Your task to perform on an android device: turn off priority inbox in the gmail app Image 0: 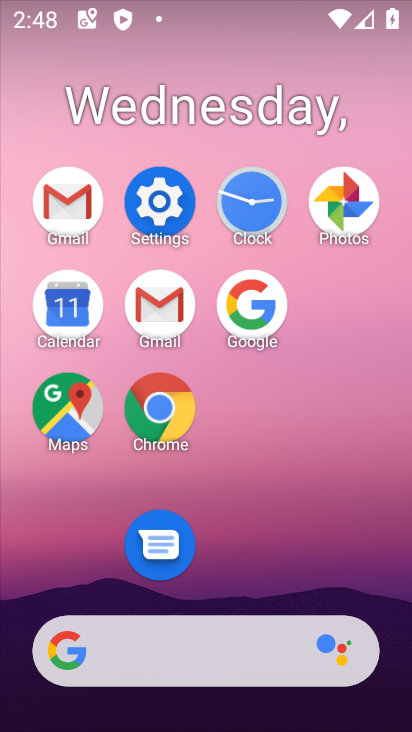
Step 0: click (180, 322)
Your task to perform on an android device: turn off priority inbox in the gmail app Image 1: 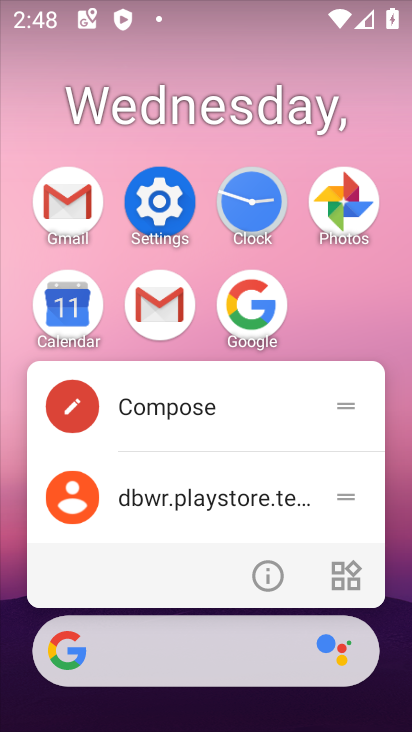
Step 1: click (159, 312)
Your task to perform on an android device: turn off priority inbox in the gmail app Image 2: 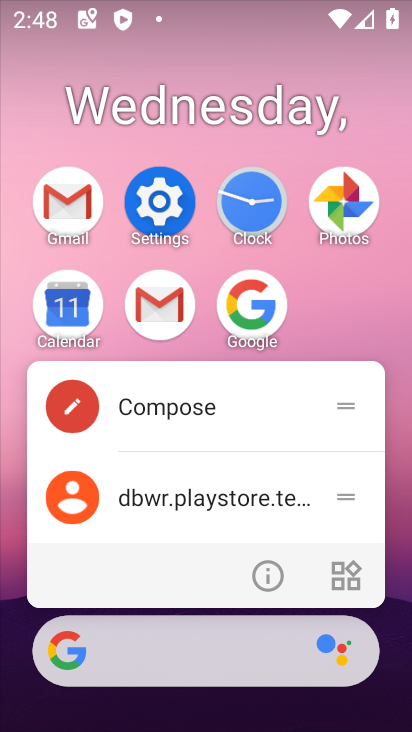
Step 2: click (160, 313)
Your task to perform on an android device: turn off priority inbox in the gmail app Image 3: 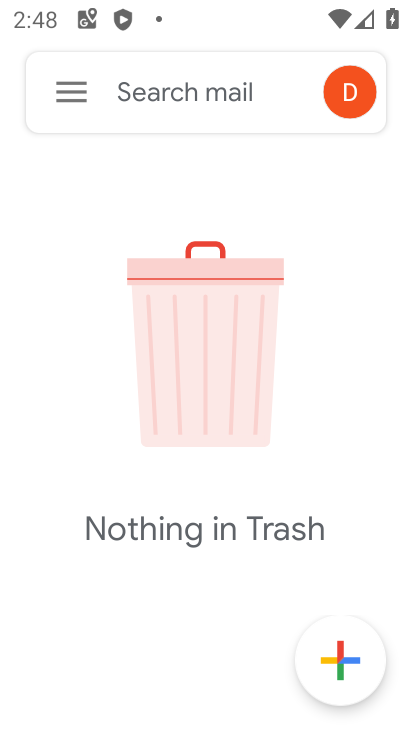
Step 3: click (84, 114)
Your task to perform on an android device: turn off priority inbox in the gmail app Image 4: 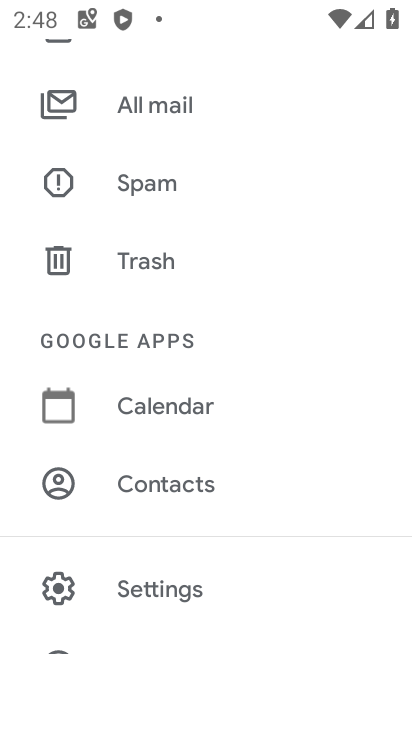
Step 4: click (192, 589)
Your task to perform on an android device: turn off priority inbox in the gmail app Image 5: 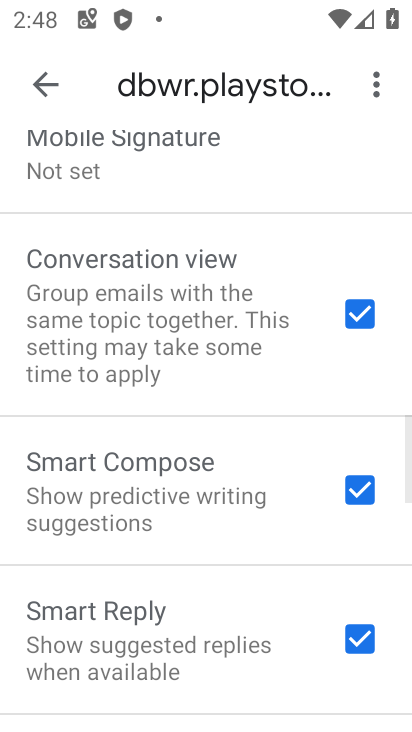
Step 5: drag from (191, 576) to (247, 590)
Your task to perform on an android device: turn off priority inbox in the gmail app Image 6: 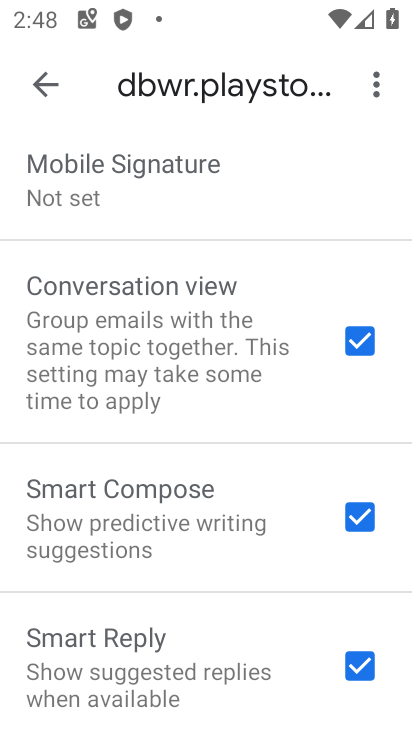
Step 6: drag from (246, 195) to (264, 529)
Your task to perform on an android device: turn off priority inbox in the gmail app Image 7: 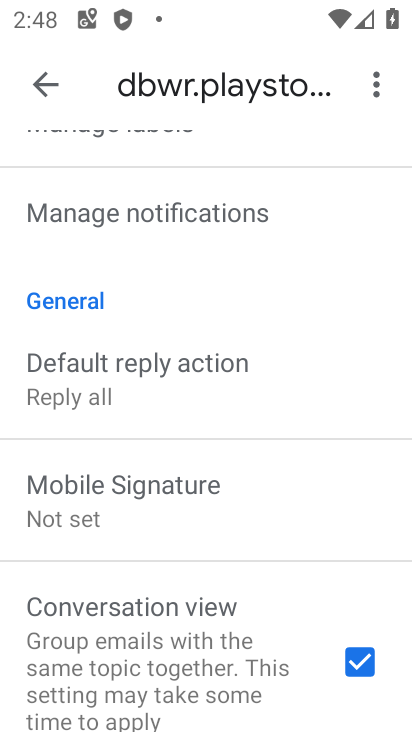
Step 7: drag from (259, 183) to (274, 528)
Your task to perform on an android device: turn off priority inbox in the gmail app Image 8: 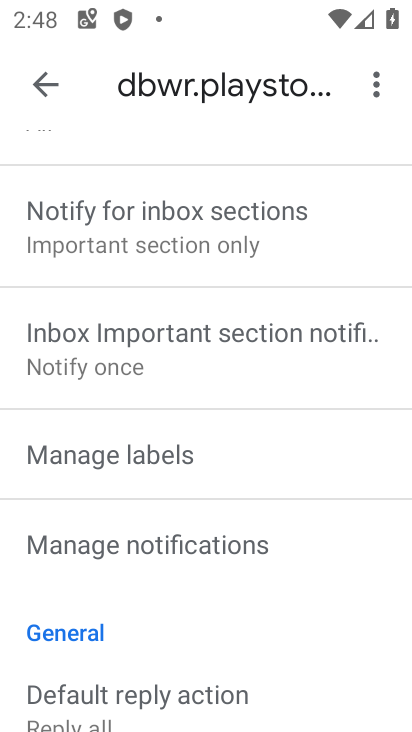
Step 8: drag from (272, 219) to (258, 646)
Your task to perform on an android device: turn off priority inbox in the gmail app Image 9: 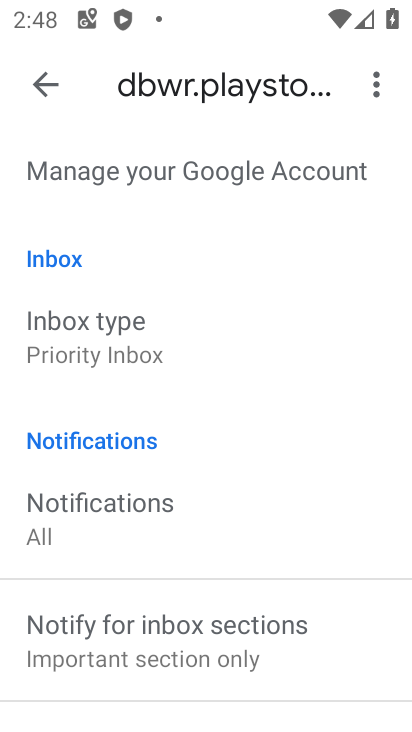
Step 9: click (162, 346)
Your task to perform on an android device: turn off priority inbox in the gmail app Image 10: 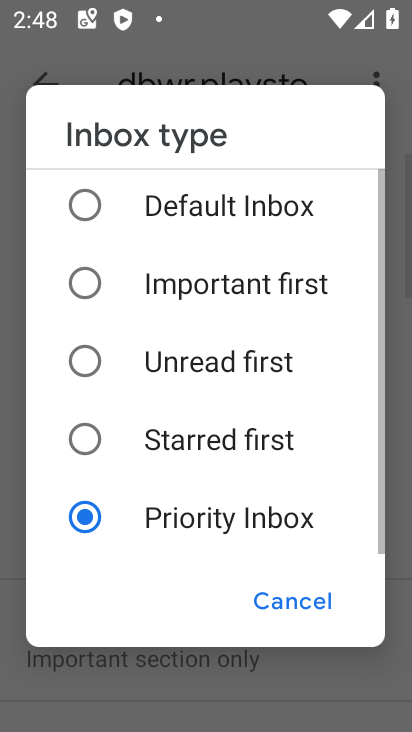
Step 10: click (176, 206)
Your task to perform on an android device: turn off priority inbox in the gmail app Image 11: 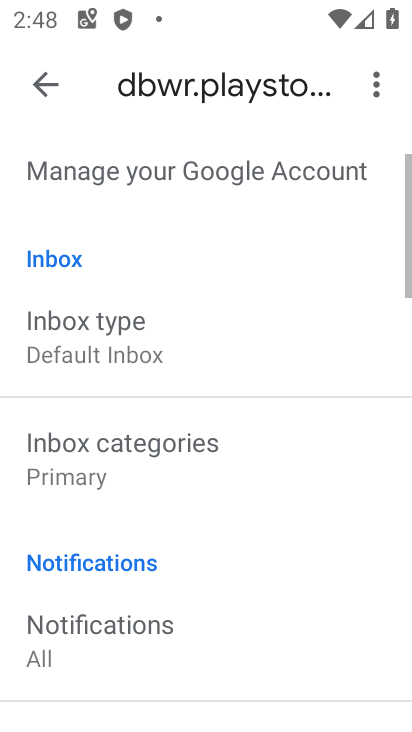
Step 11: task complete